Your task to perform on an android device: change timer sound Image 0: 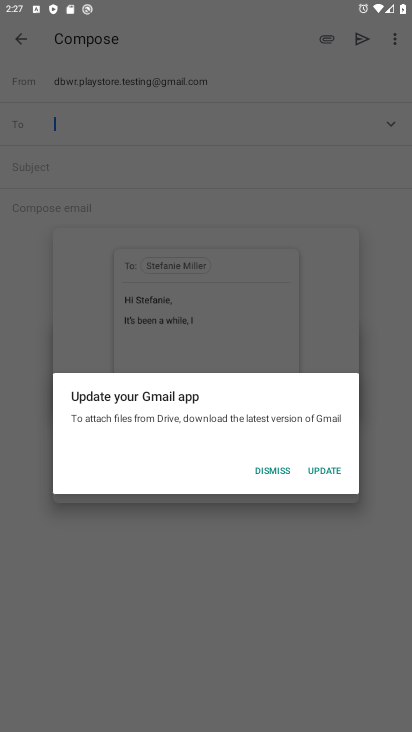
Step 0: press home button
Your task to perform on an android device: change timer sound Image 1: 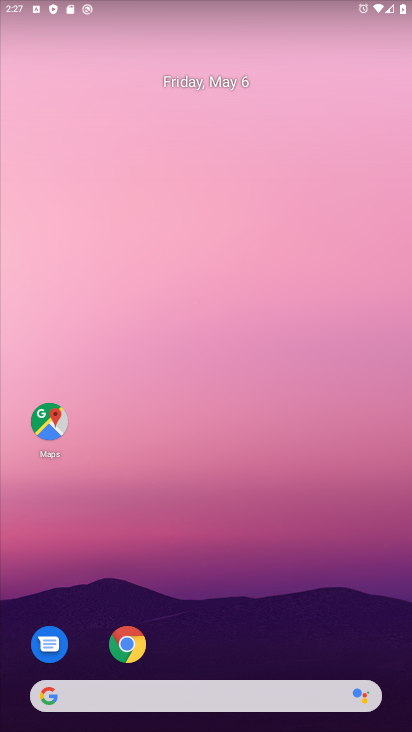
Step 1: drag from (244, 723) to (244, 51)
Your task to perform on an android device: change timer sound Image 2: 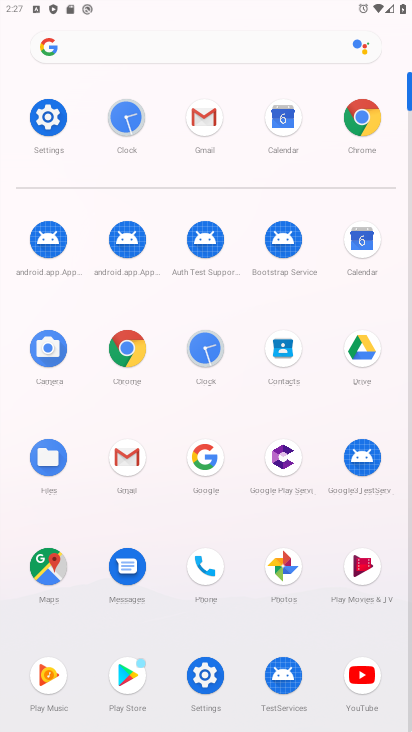
Step 2: click (205, 360)
Your task to perform on an android device: change timer sound Image 3: 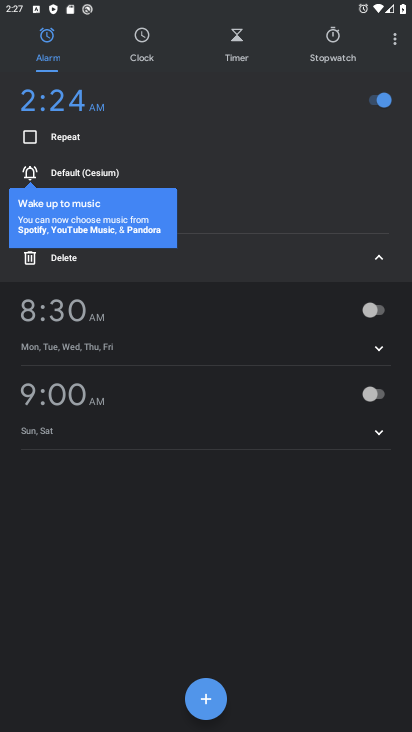
Step 3: click (395, 31)
Your task to perform on an android device: change timer sound Image 4: 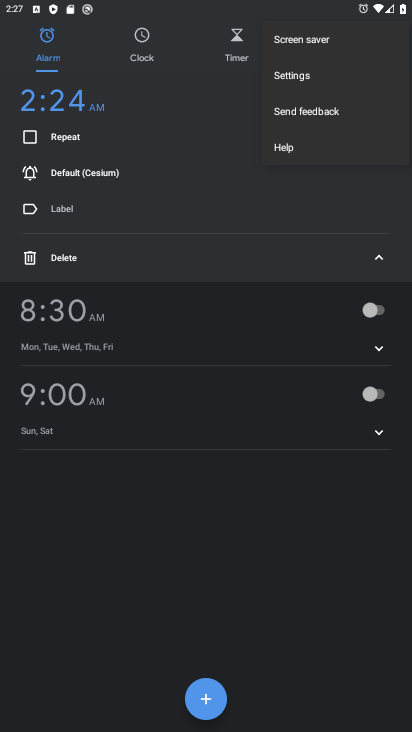
Step 4: click (332, 75)
Your task to perform on an android device: change timer sound Image 5: 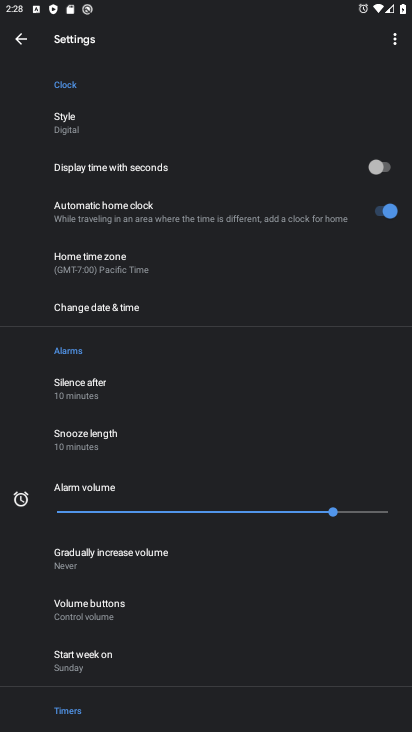
Step 5: drag from (244, 613) to (241, 72)
Your task to perform on an android device: change timer sound Image 6: 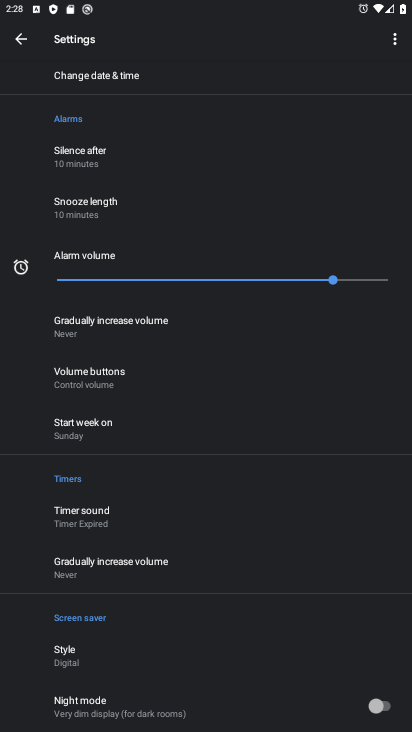
Step 6: click (136, 522)
Your task to perform on an android device: change timer sound Image 7: 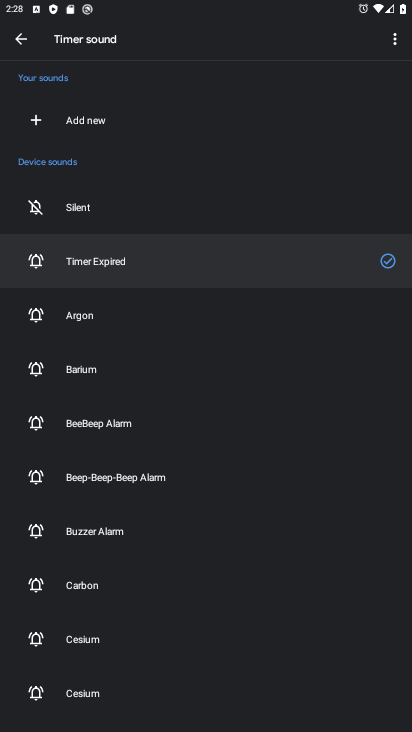
Step 7: click (94, 429)
Your task to perform on an android device: change timer sound Image 8: 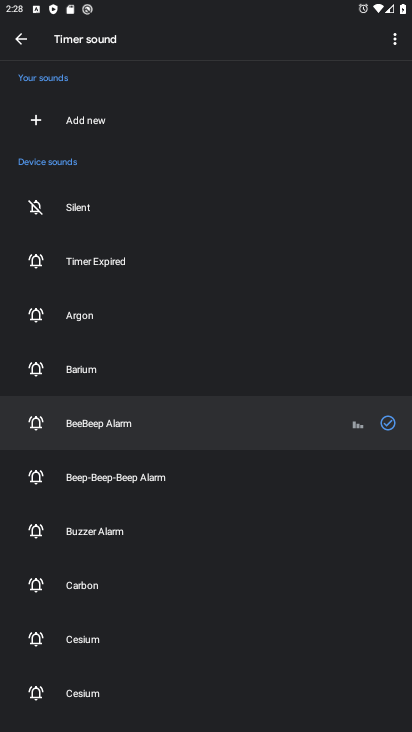
Step 8: task complete